Your task to perform on an android device: see tabs open on other devices in the chrome app Image 0: 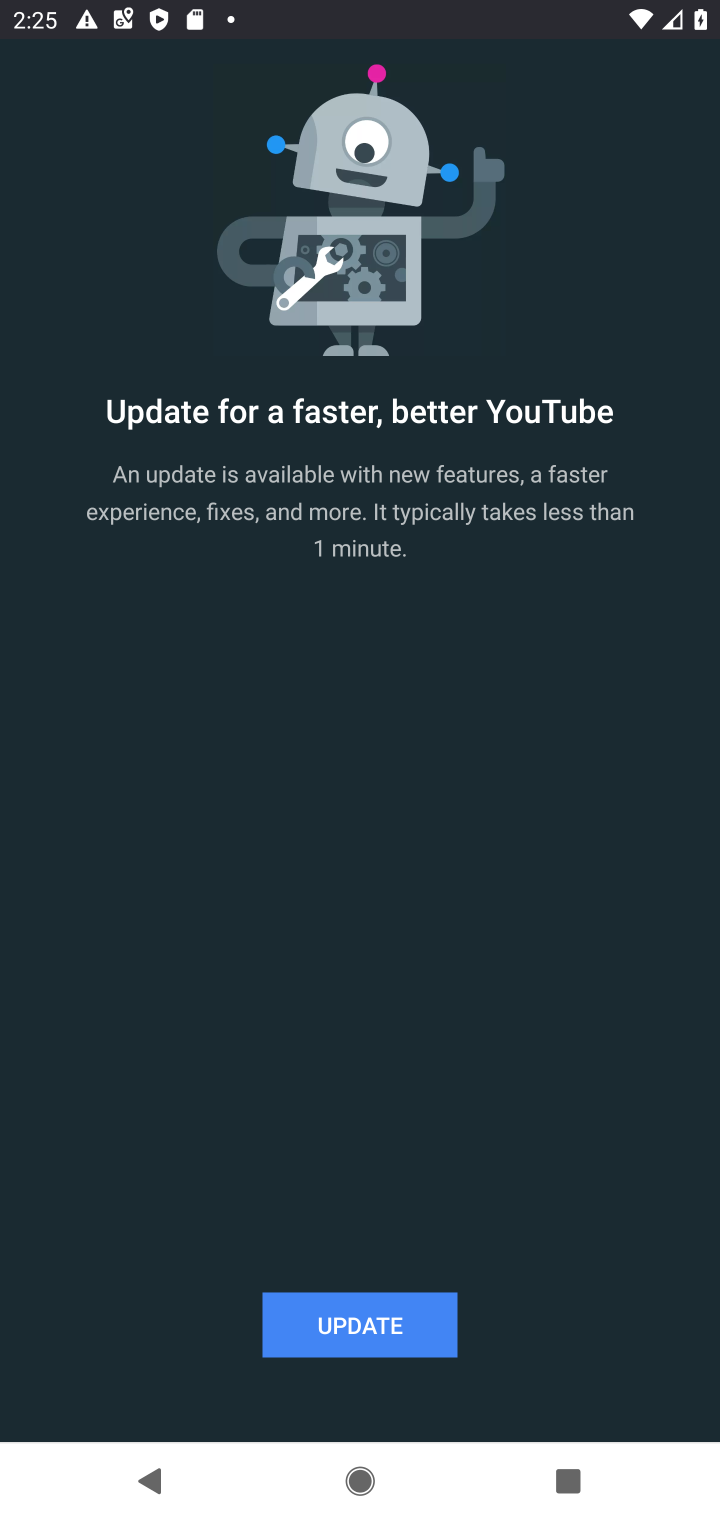
Step 0: press home button
Your task to perform on an android device: see tabs open on other devices in the chrome app Image 1: 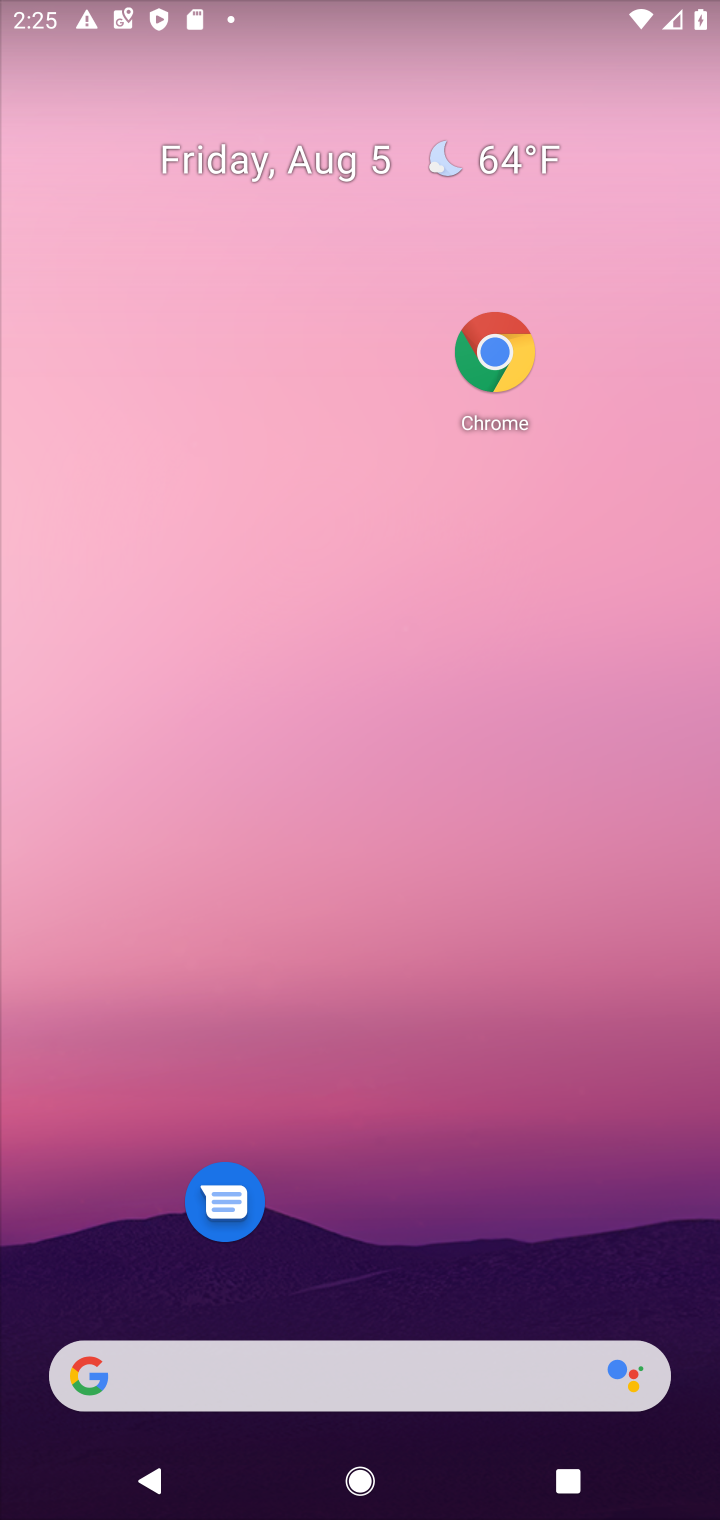
Step 1: drag from (479, 1016) to (444, 80)
Your task to perform on an android device: see tabs open on other devices in the chrome app Image 2: 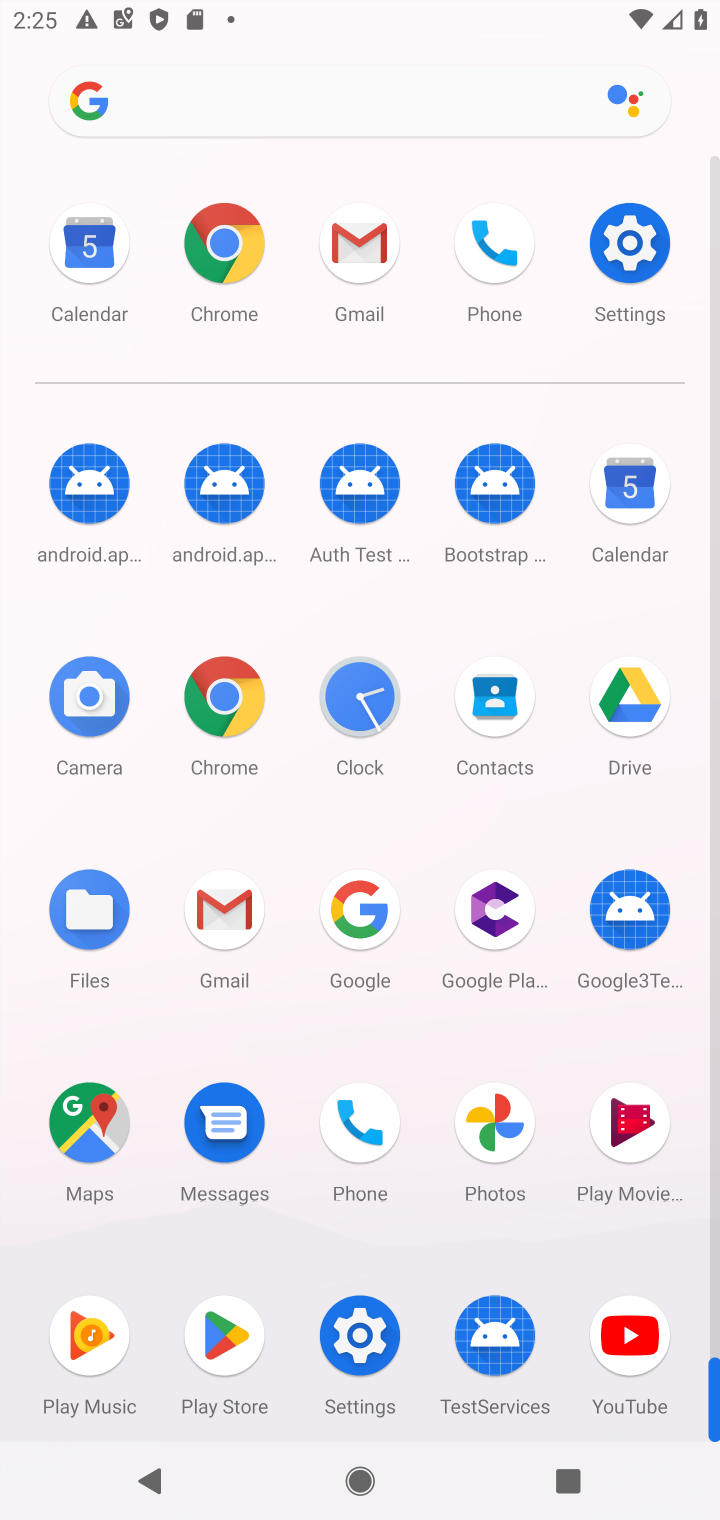
Step 2: click (217, 700)
Your task to perform on an android device: see tabs open on other devices in the chrome app Image 3: 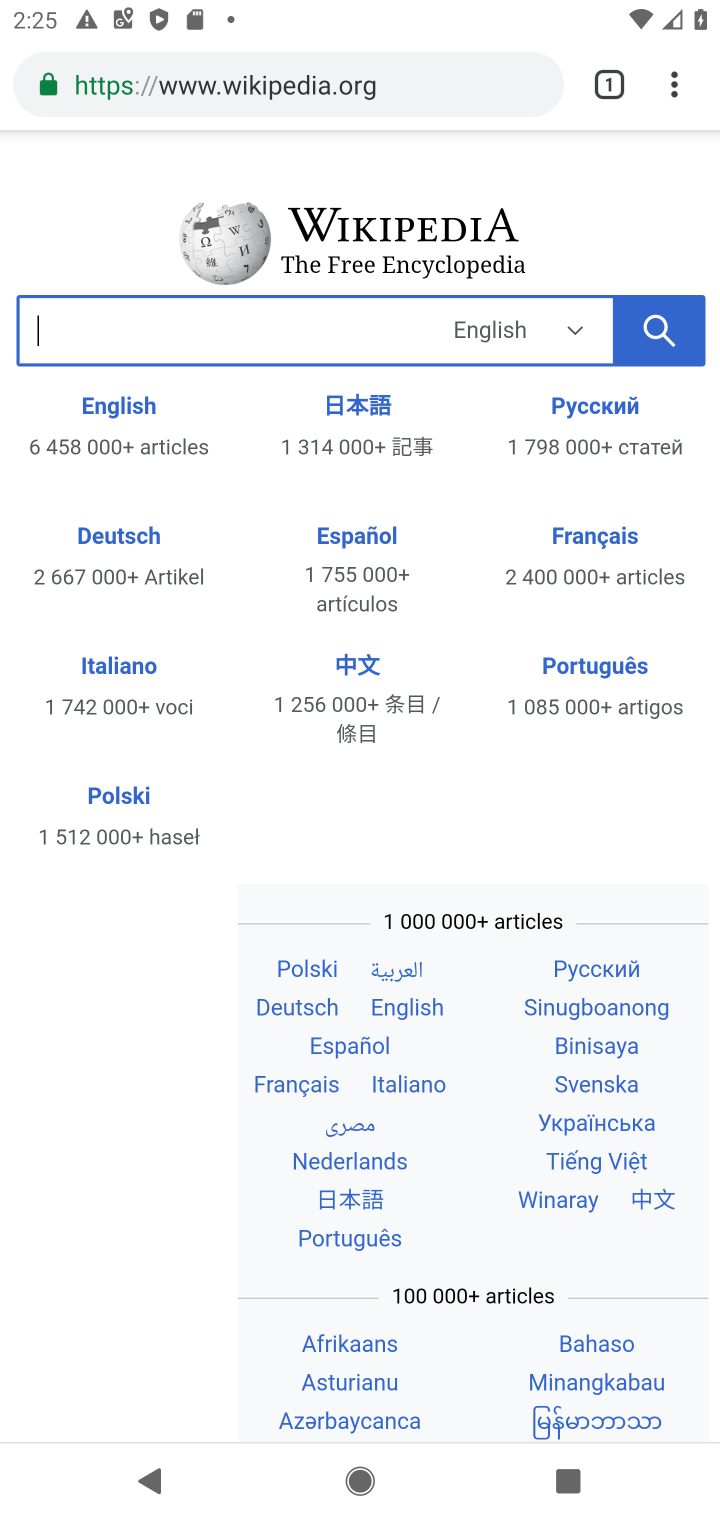
Step 3: task complete